Your task to perform on an android device: Open Google Maps and go to "Timeline" Image 0: 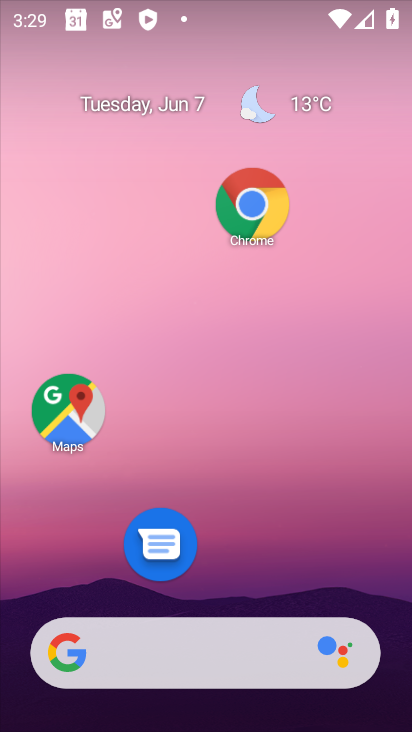
Step 0: drag from (225, 594) to (232, 526)
Your task to perform on an android device: Open Google Maps and go to "Timeline" Image 1: 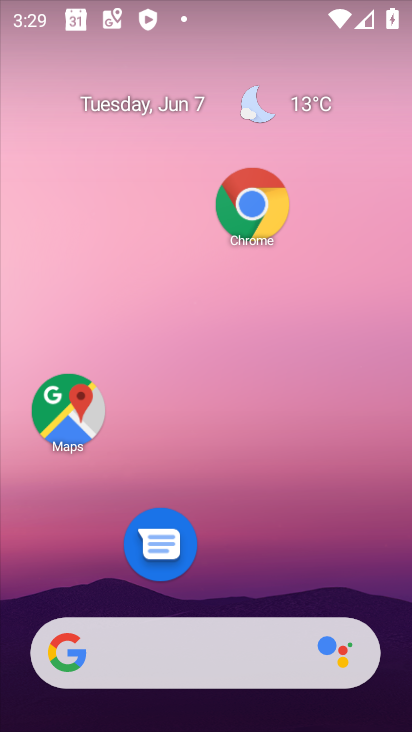
Step 1: drag from (247, 287) to (261, 82)
Your task to perform on an android device: Open Google Maps and go to "Timeline" Image 2: 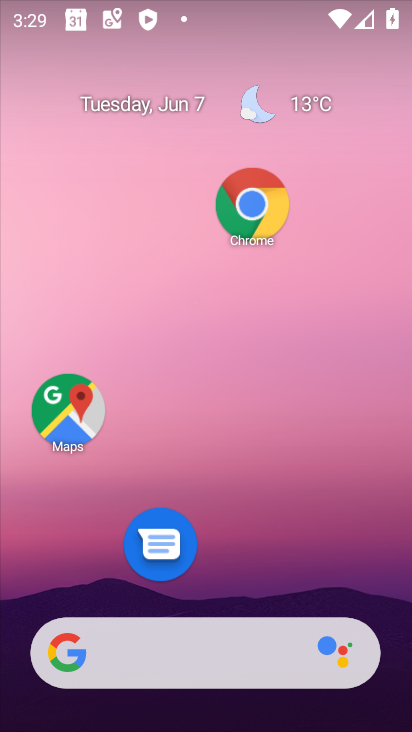
Step 2: click (67, 404)
Your task to perform on an android device: Open Google Maps and go to "Timeline" Image 3: 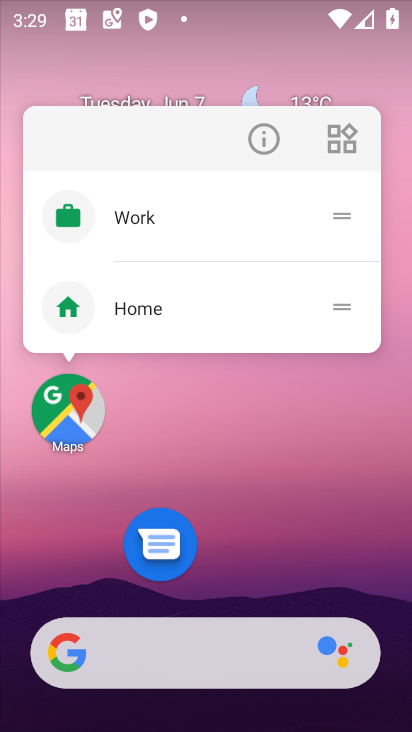
Step 3: click (67, 404)
Your task to perform on an android device: Open Google Maps and go to "Timeline" Image 4: 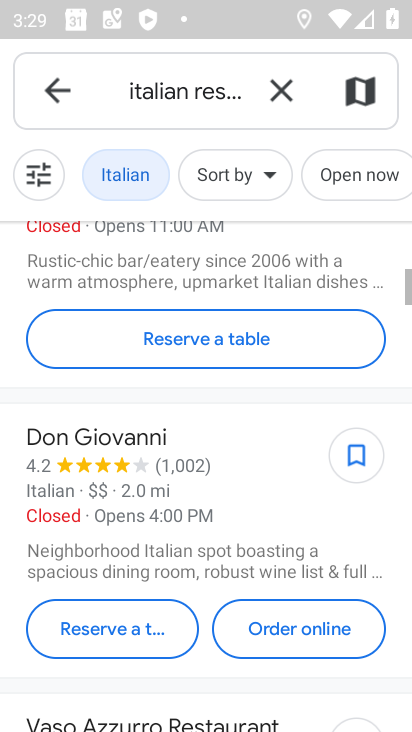
Step 4: click (66, 88)
Your task to perform on an android device: Open Google Maps and go to "Timeline" Image 5: 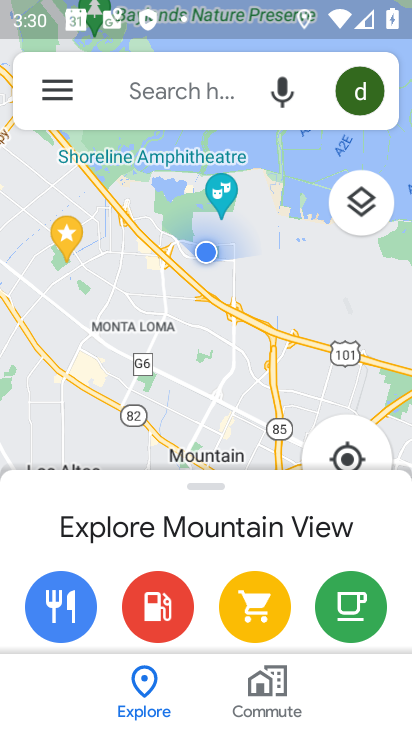
Step 5: click (51, 86)
Your task to perform on an android device: Open Google Maps and go to "Timeline" Image 6: 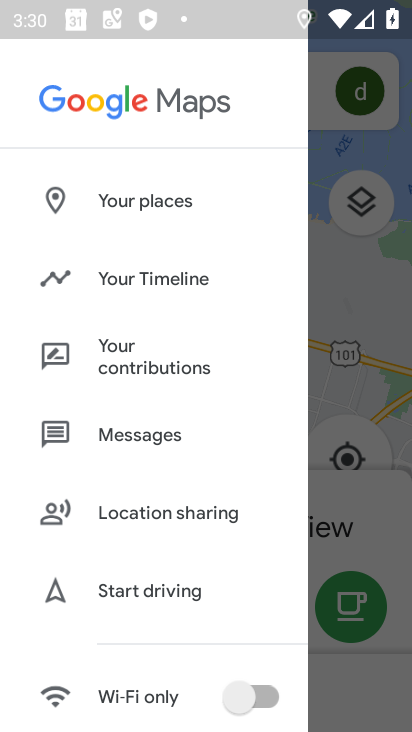
Step 6: click (213, 271)
Your task to perform on an android device: Open Google Maps and go to "Timeline" Image 7: 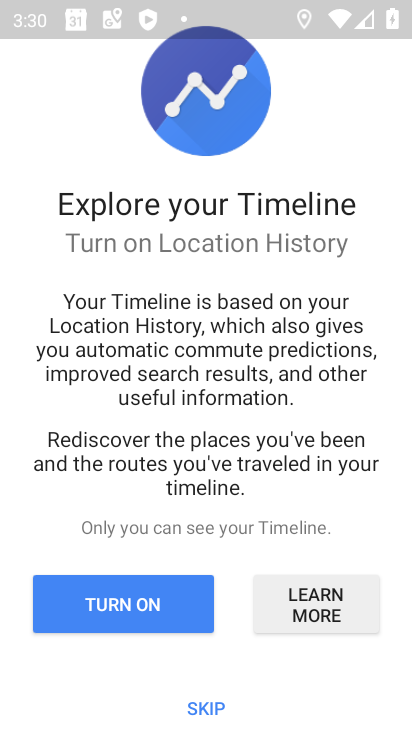
Step 7: click (127, 607)
Your task to perform on an android device: Open Google Maps and go to "Timeline" Image 8: 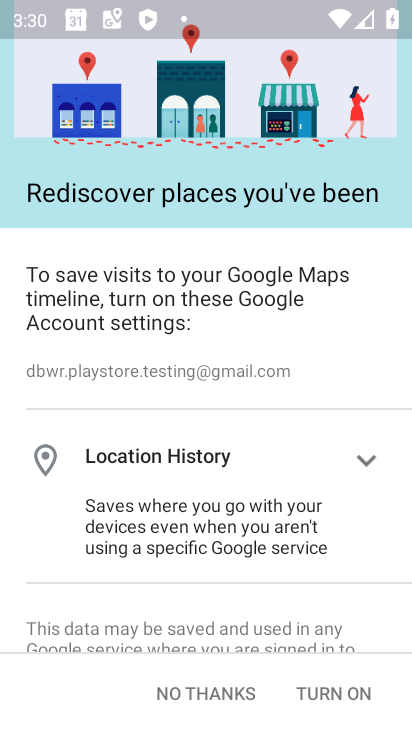
Step 8: drag from (259, 611) to (242, 183)
Your task to perform on an android device: Open Google Maps and go to "Timeline" Image 9: 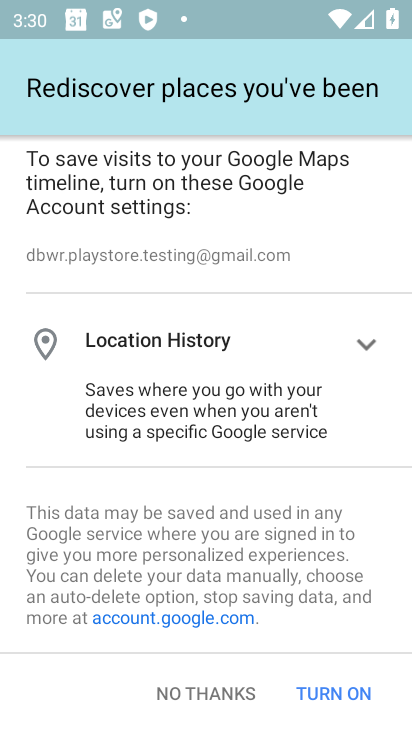
Step 9: click (336, 700)
Your task to perform on an android device: Open Google Maps and go to "Timeline" Image 10: 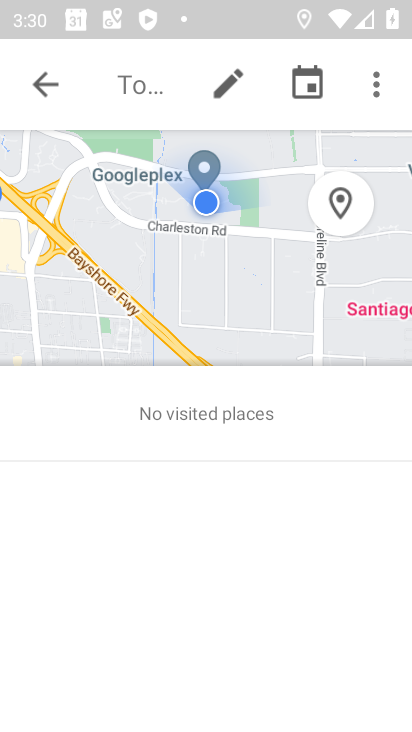
Step 10: task complete